Your task to perform on an android device: turn off javascript in the chrome app Image 0: 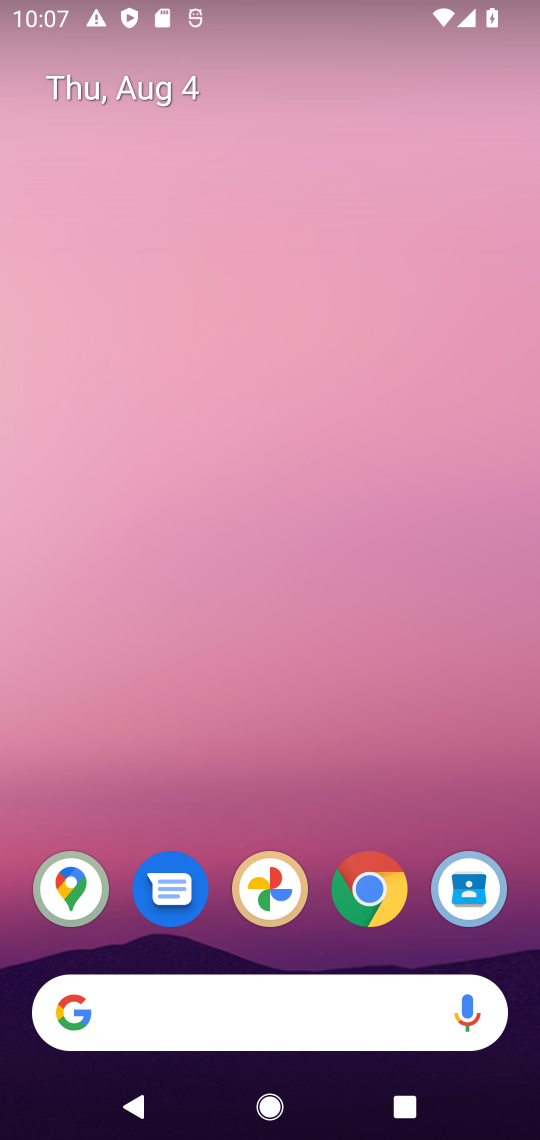
Step 0: press home button
Your task to perform on an android device: turn off javascript in the chrome app Image 1: 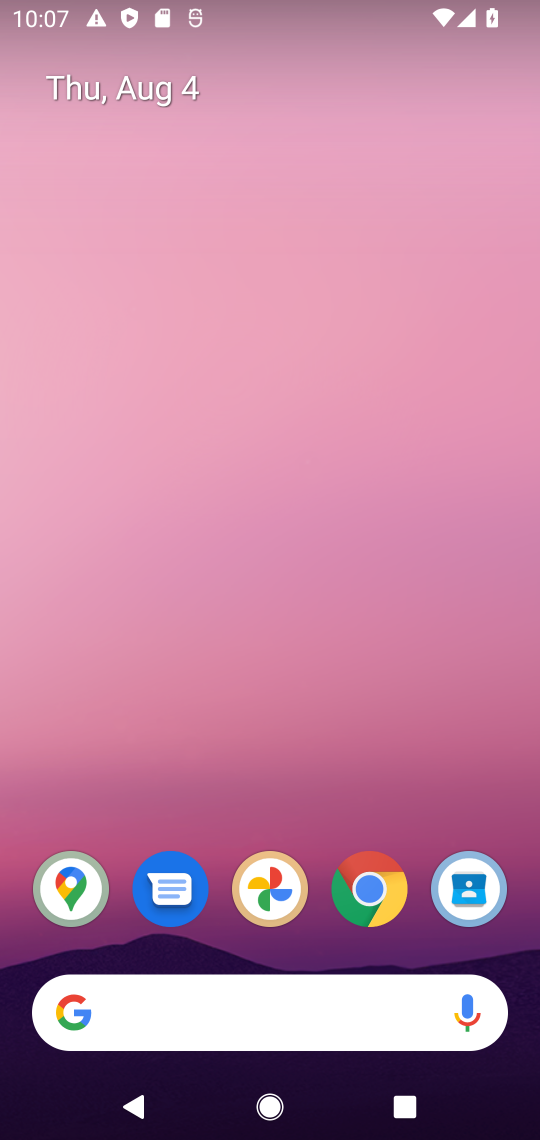
Step 1: drag from (360, 728) to (332, 225)
Your task to perform on an android device: turn off javascript in the chrome app Image 2: 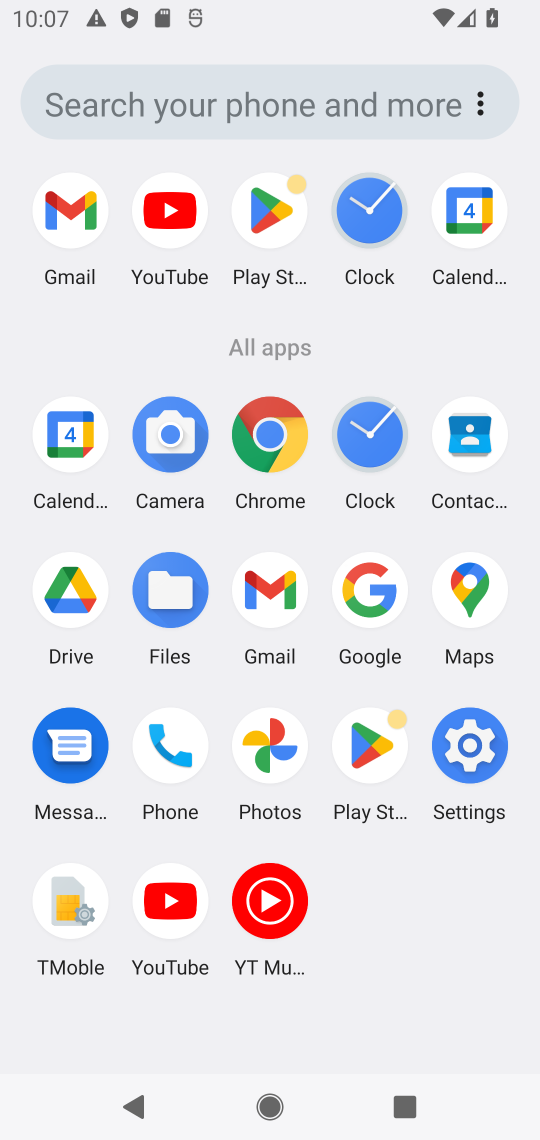
Step 2: click (291, 432)
Your task to perform on an android device: turn off javascript in the chrome app Image 3: 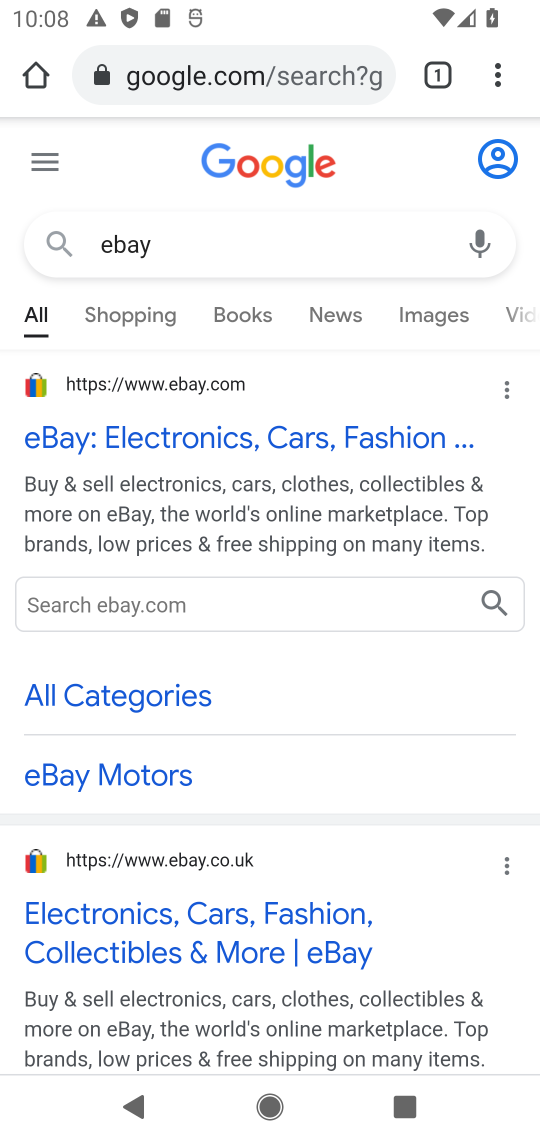
Step 3: click (494, 83)
Your task to perform on an android device: turn off javascript in the chrome app Image 4: 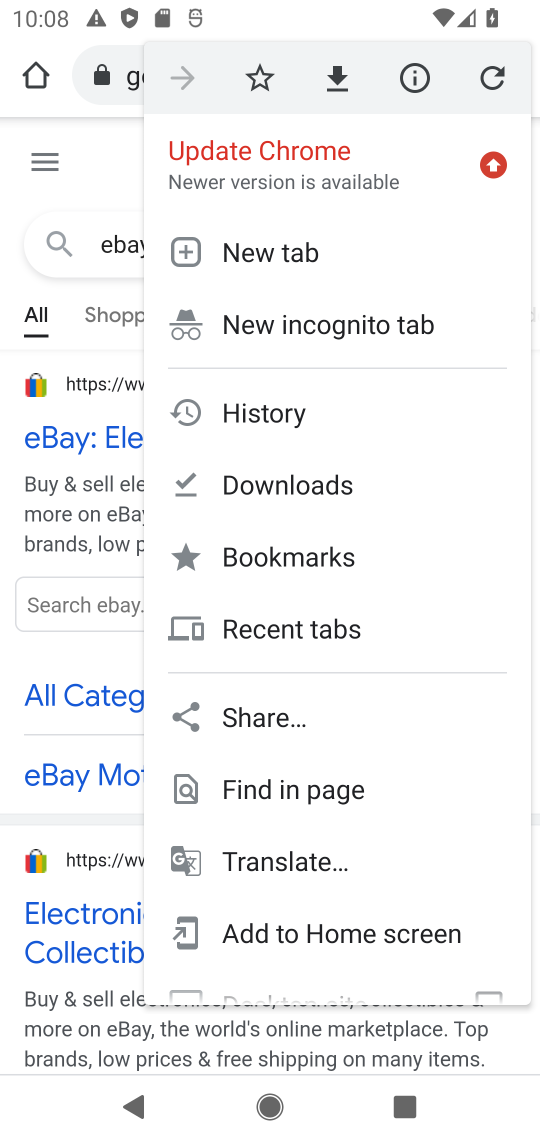
Step 4: drag from (436, 640) to (454, 520)
Your task to perform on an android device: turn off javascript in the chrome app Image 5: 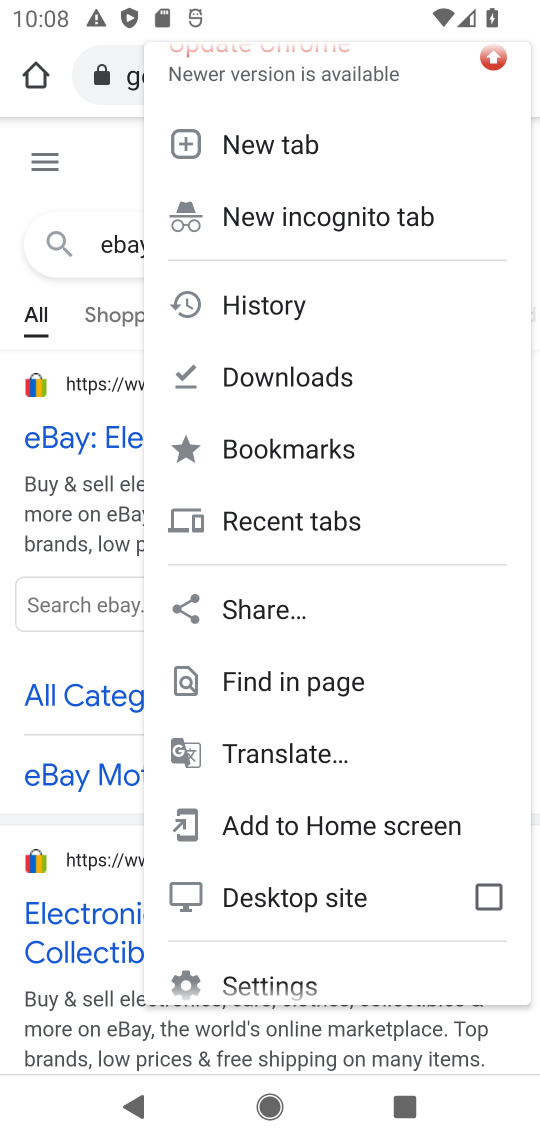
Step 5: drag from (441, 688) to (445, 493)
Your task to perform on an android device: turn off javascript in the chrome app Image 6: 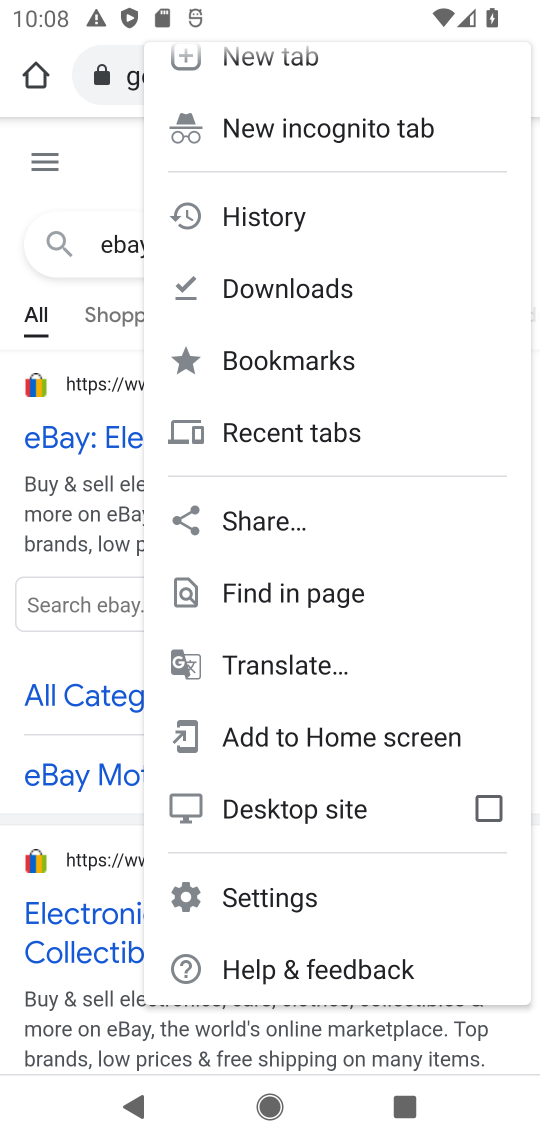
Step 6: click (392, 900)
Your task to perform on an android device: turn off javascript in the chrome app Image 7: 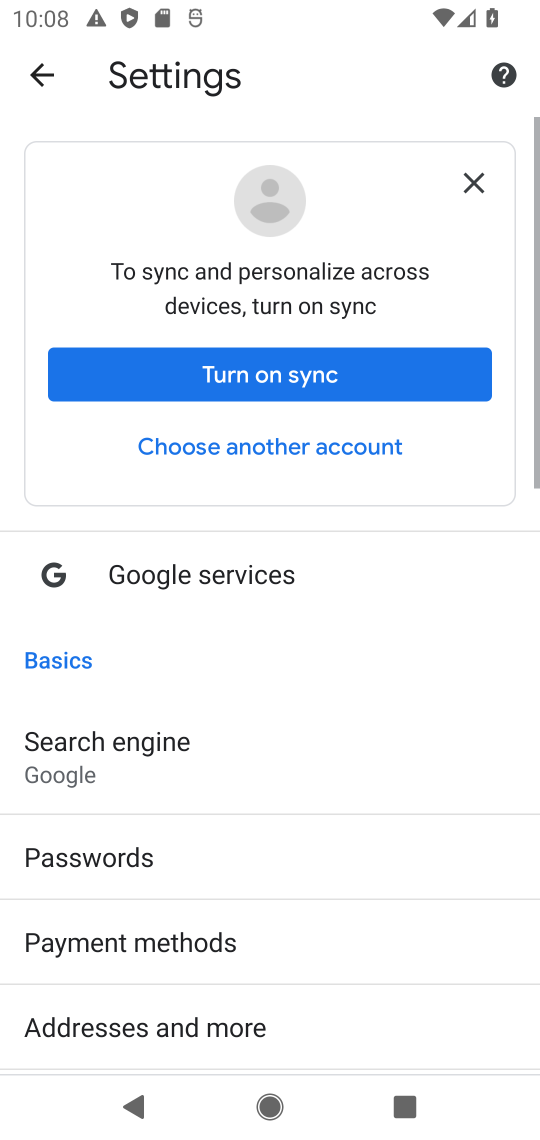
Step 7: drag from (389, 899) to (424, 727)
Your task to perform on an android device: turn off javascript in the chrome app Image 8: 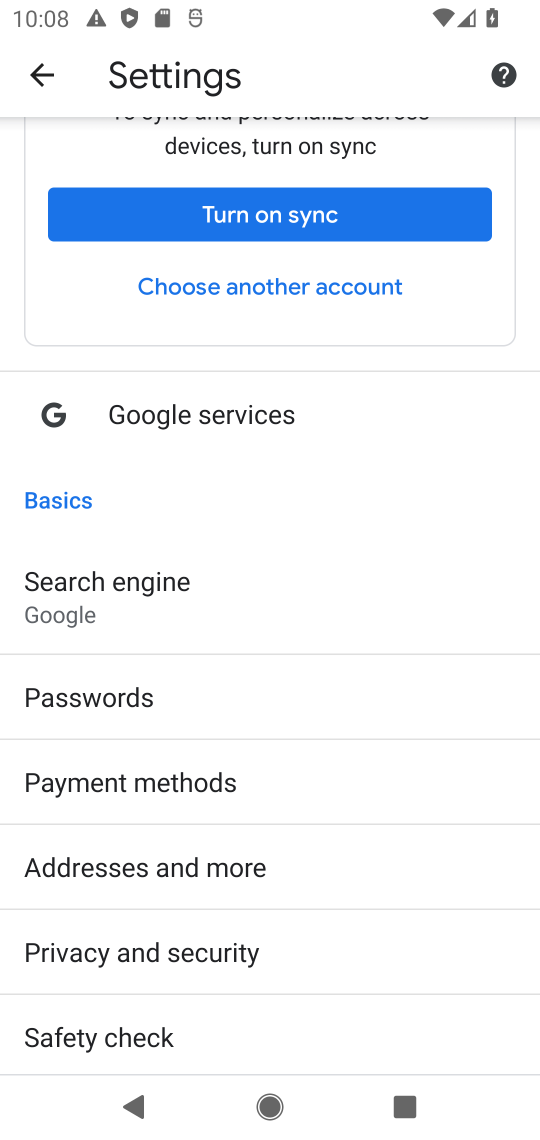
Step 8: drag from (420, 945) to (431, 778)
Your task to perform on an android device: turn off javascript in the chrome app Image 9: 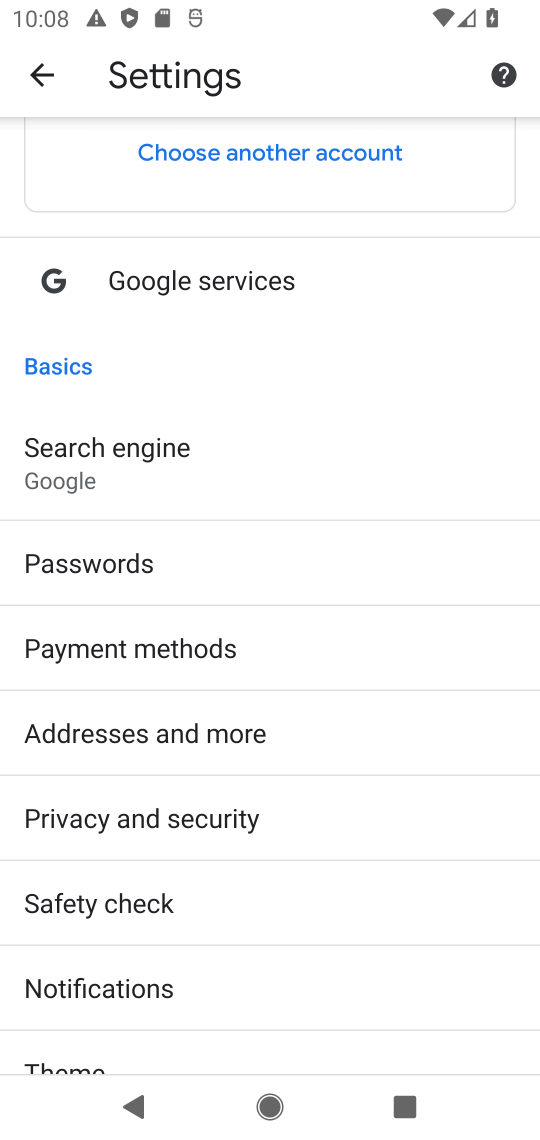
Step 9: drag from (409, 898) to (420, 756)
Your task to perform on an android device: turn off javascript in the chrome app Image 10: 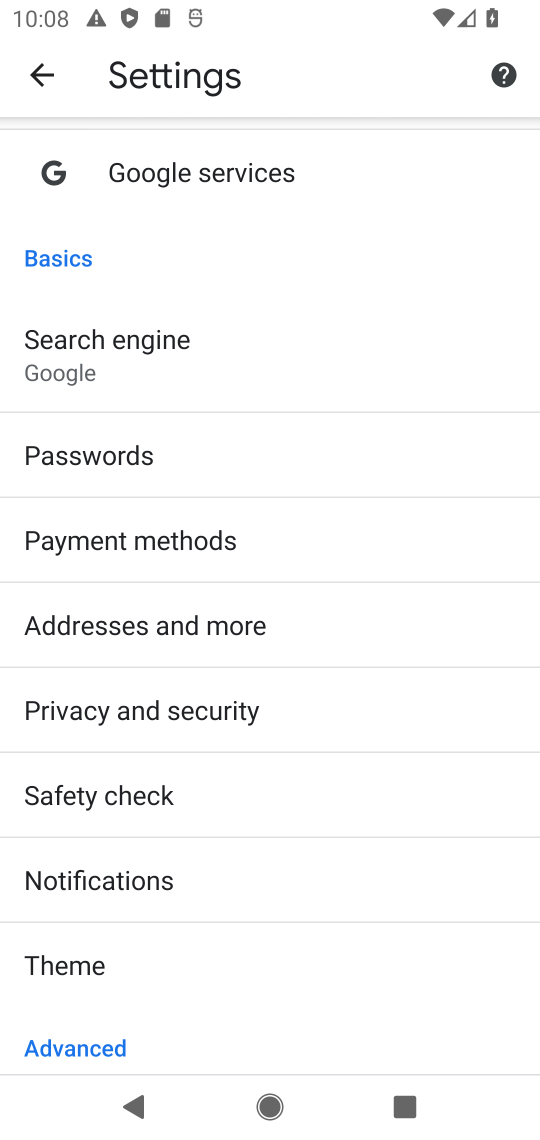
Step 10: drag from (408, 935) to (419, 747)
Your task to perform on an android device: turn off javascript in the chrome app Image 11: 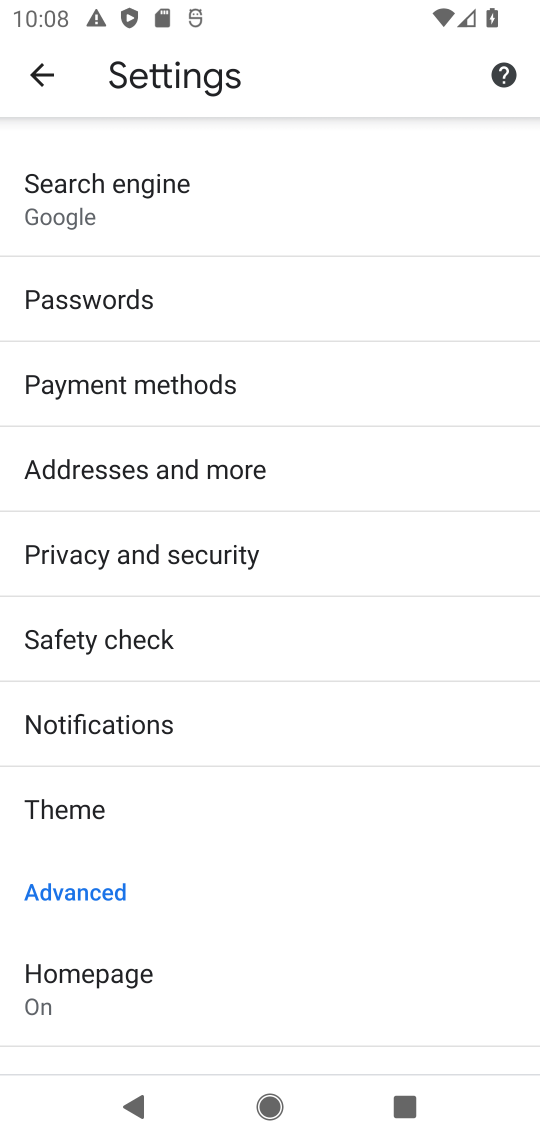
Step 11: drag from (386, 956) to (405, 738)
Your task to perform on an android device: turn off javascript in the chrome app Image 12: 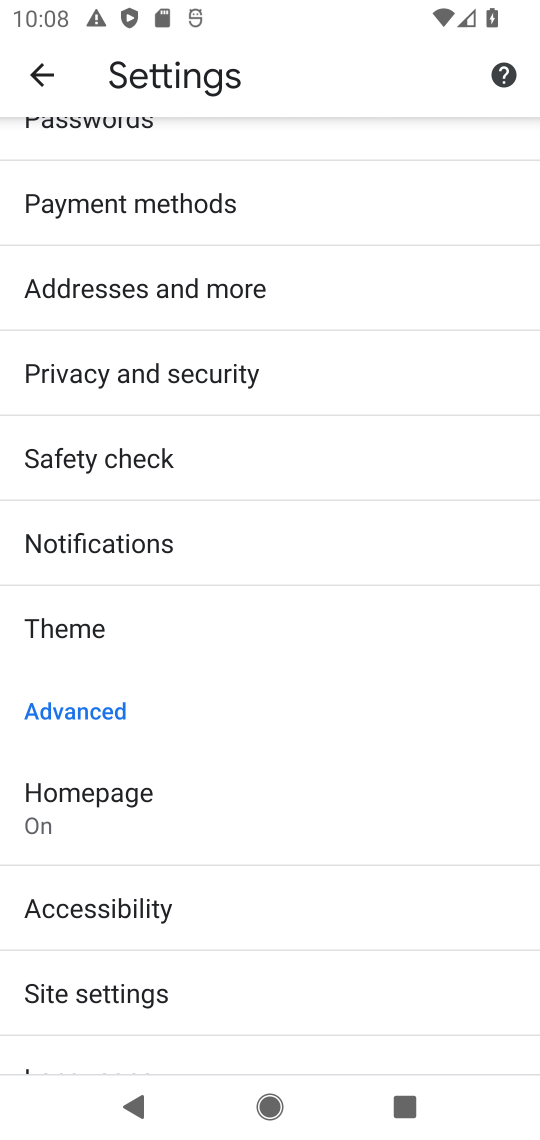
Step 12: drag from (351, 906) to (360, 765)
Your task to perform on an android device: turn off javascript in the chrome app Image 13: 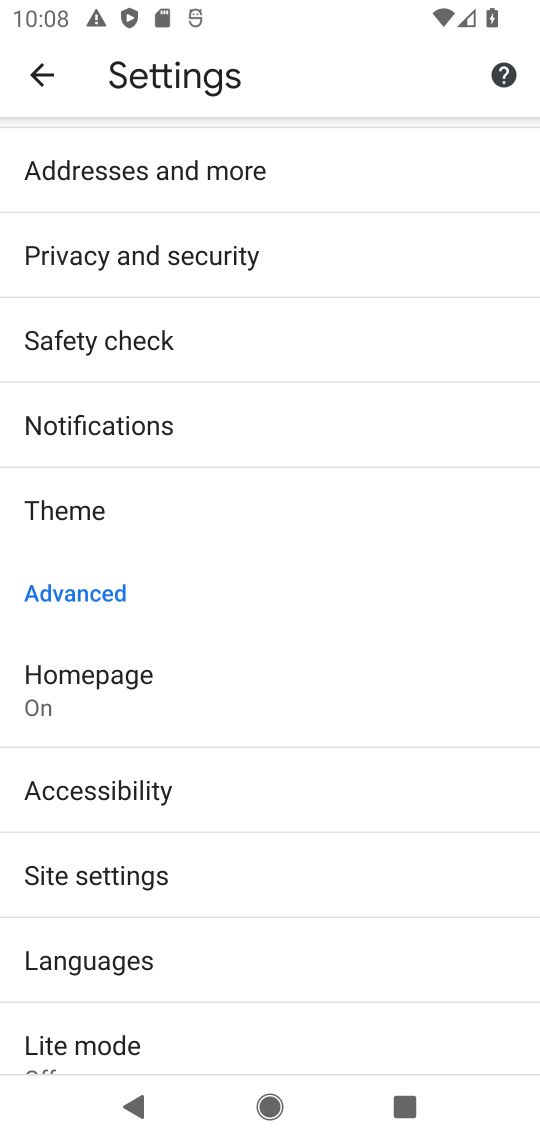
Step 13: click (334, 884)
Your task to perform on an android device: turn off javascript in the chrome app Image 14: 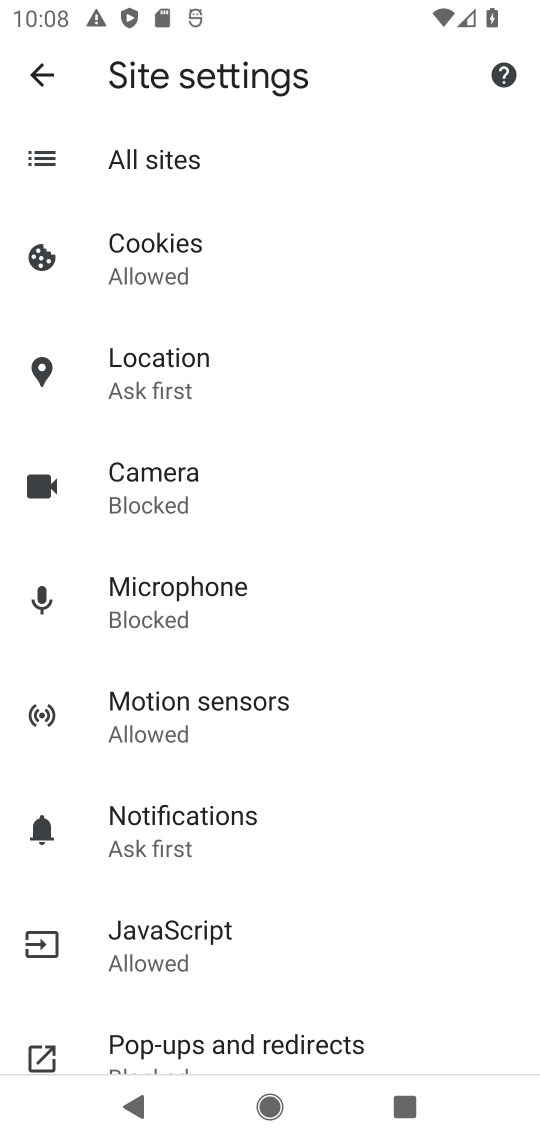
Step 14: drag from (285, 940) to (310, 679)
Your task to perform on an android device: turn off javascript in the chrome app Image 15: 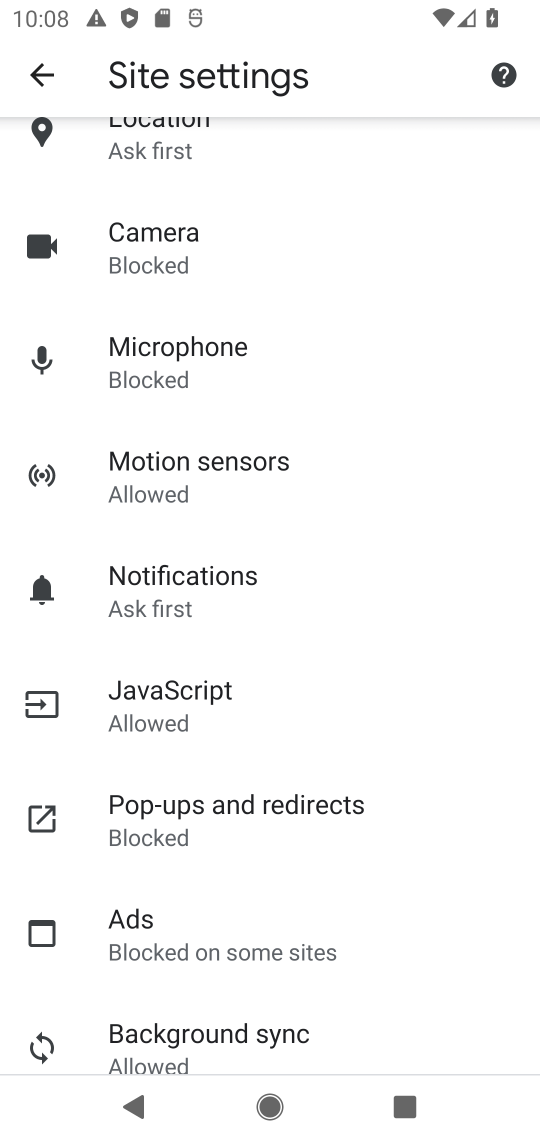
Step 15: click (238, 696)
Your task to perform on an android device: turn off javascript in the chrome app Image 16: 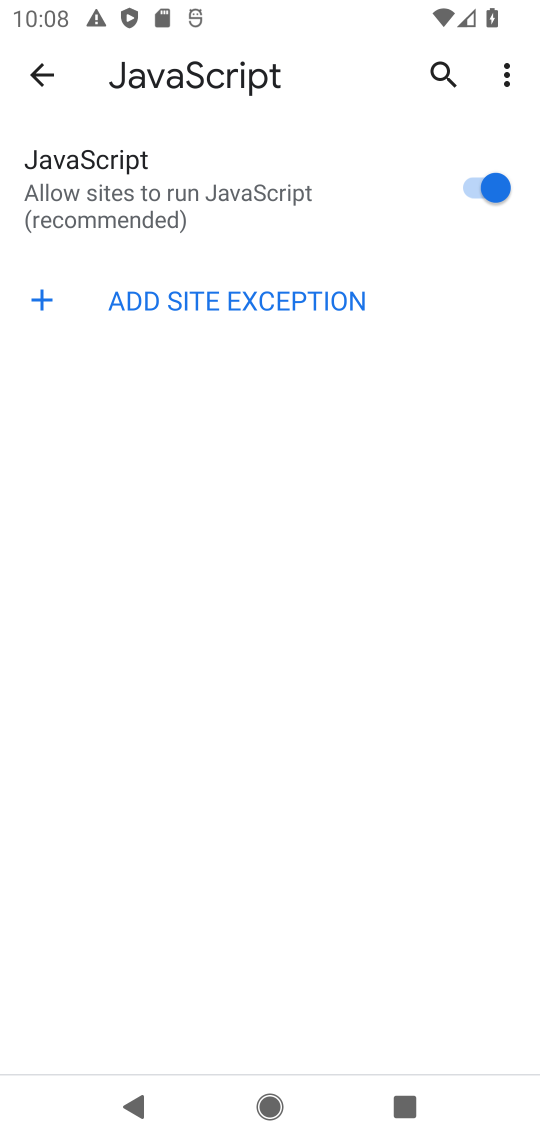
Step 16: click (477, 182)
Your task to perform on an android device: turn off javascript in the chrome app Image 17: 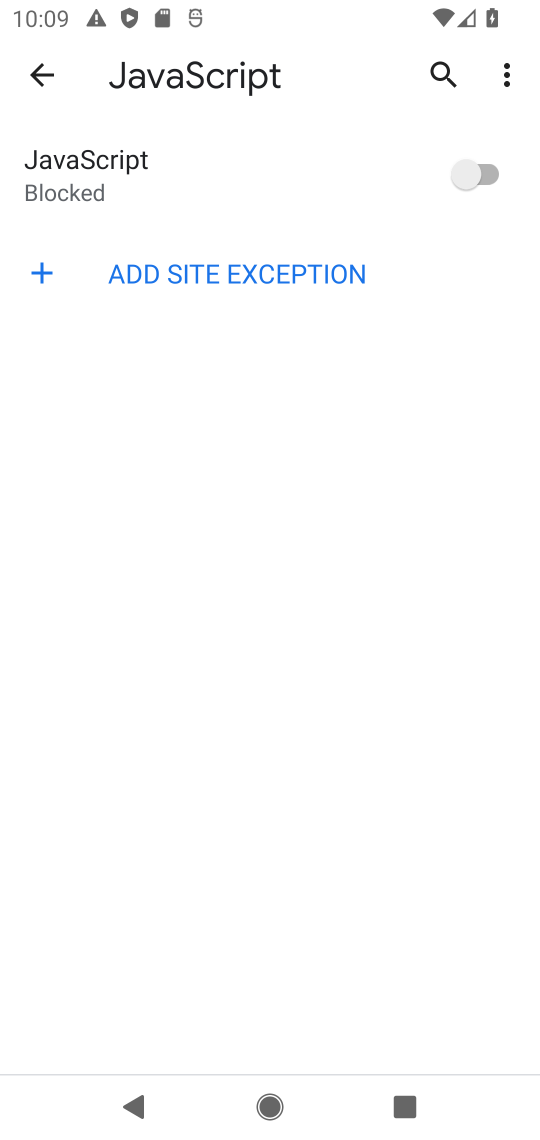
Step 17: task complete